Your task to perform on an android device: turn on data saver in the chrome app Image 0: 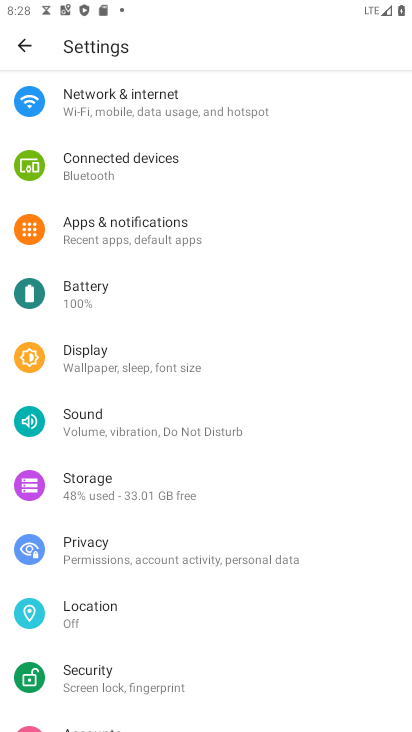
Step 0: press home button
Your task to perform on an android device: turn on data saver in the chrome app Image 1: 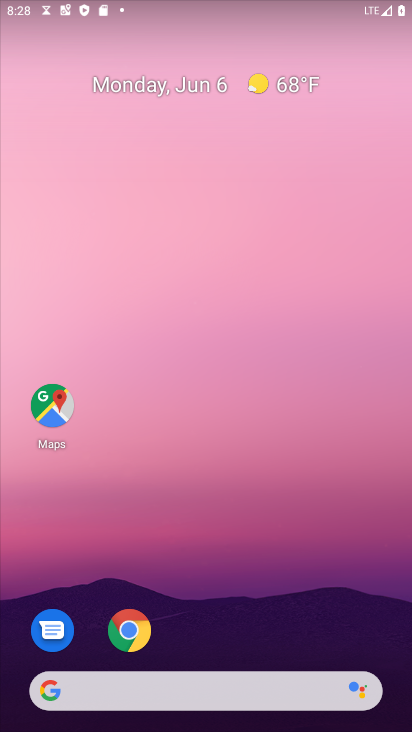
Step 1: click (129, 630)
Your task to perform on an android device: turn on data saver in the chrome app Image 2: 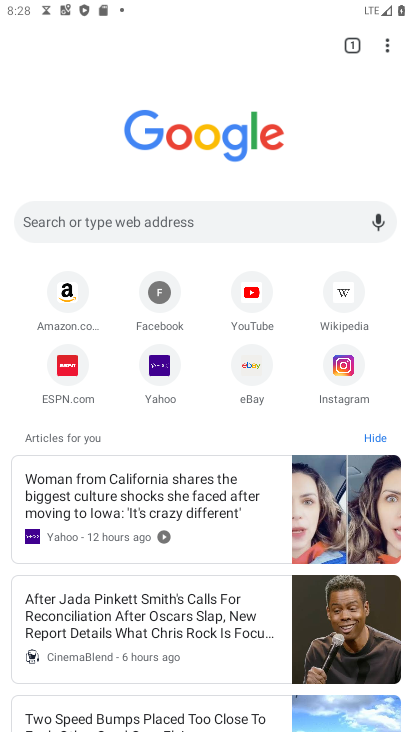
Step 2: click (386, 45)
Your task to perform on an android device: turn on data saver in the chrome app Image 3: 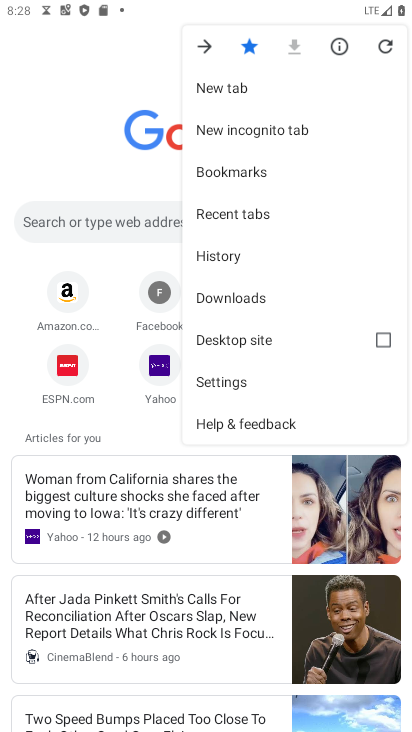
Step 3: click (217, 379)
Your task to perform on an android device: turn on data saver in the chrome app Image 4: 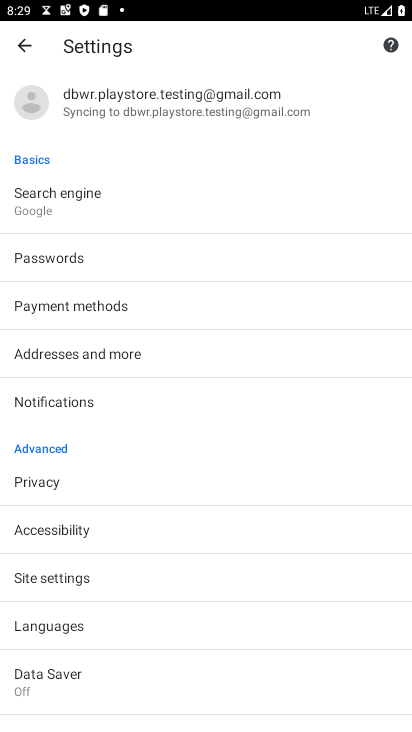
Step 4: click (55, 672)
Your task to perform on an android device: turn on data saver in the chrome app Image 5: 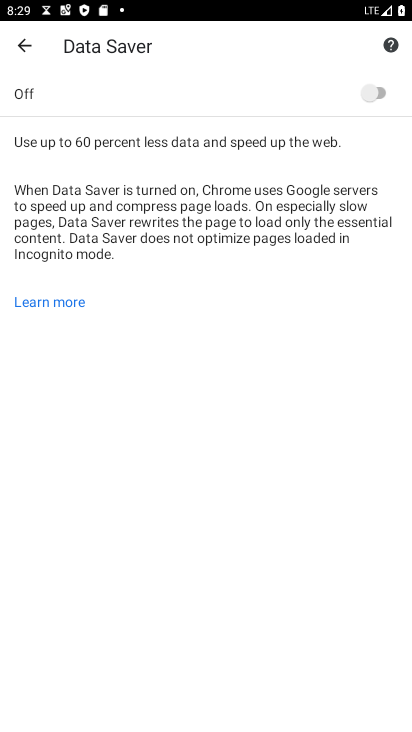
Step 5: click (379, 90)
Your task to perform on an android device: turn on data saver in the chrome app Image 6: 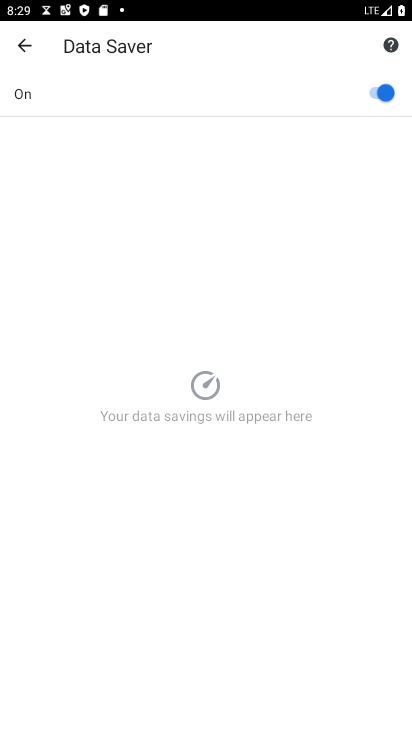
Step 6: task complete